Your task to perform on an android device: turn pop-ups off in chrome Image 0: 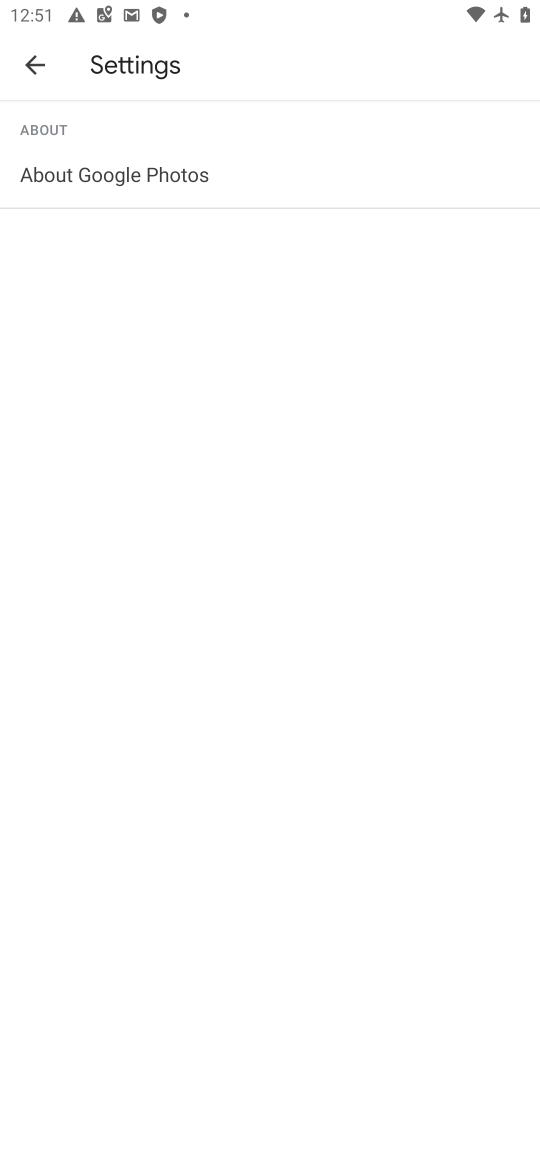
Step 0: task complete